Your task to perform on an android device: see sites visited before in the chrome app Image 0: 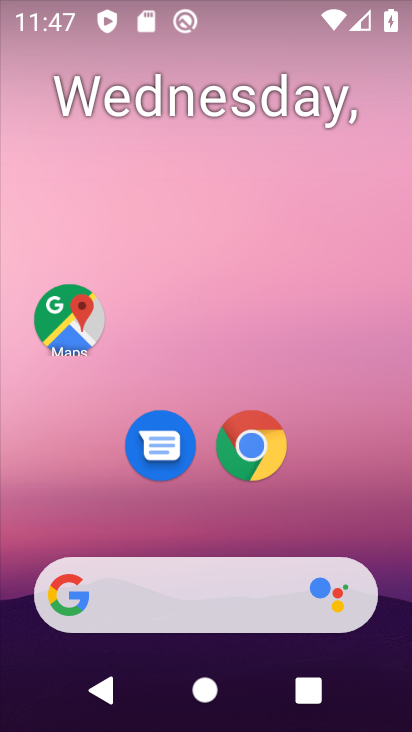
Step 0: drag from (196, 507) to (227, 3)
Your task to perform on an android device: see sites visited before in the chrome app Image 1: 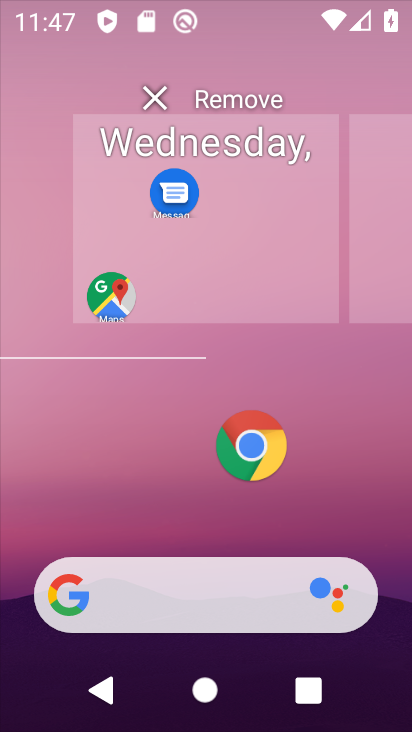
Step 1: drag from (203, 534) to (208, 112)
Your task to perform on an android device: see sites visited before in the chrome app Image 2: 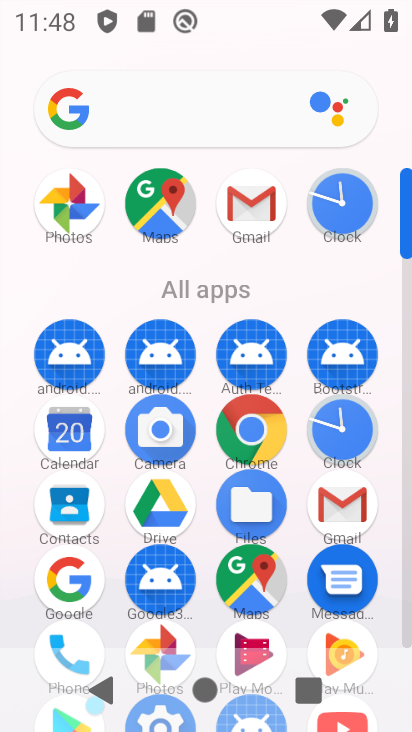
Step 2: click (245, 400)
Your task to perform on an android device: see sites visited before in the chrome app Image 3: 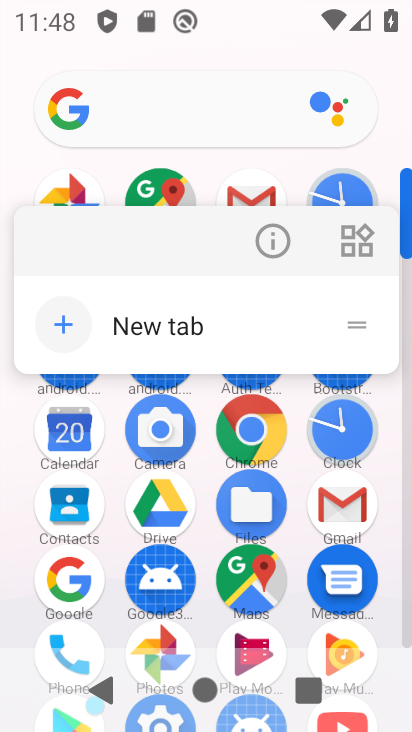
Step 3: click (289, 238)
Your task to perform on an android device: see sites visited before in the chrome app Image 4: 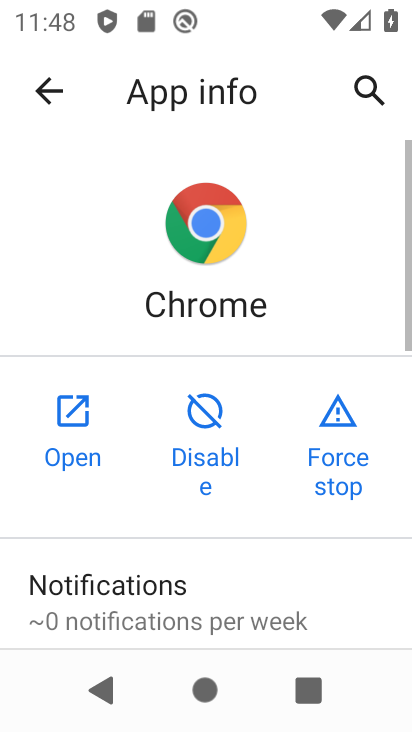
Step 4: click (92, 431)
Your task to perform on an android device: see sites visited before in the chrome app Image 5: 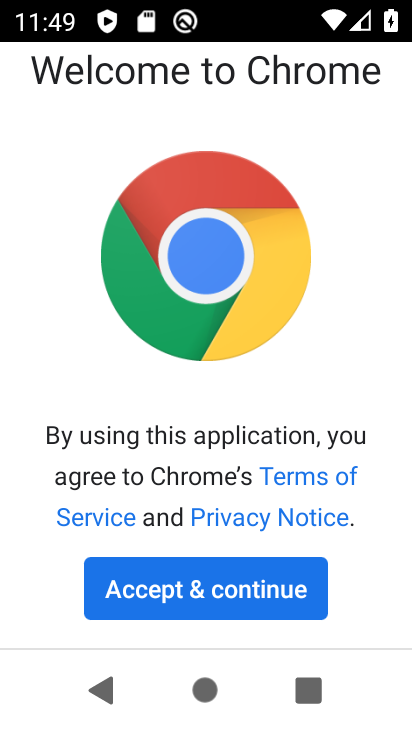
Step 5: click (157, 591)
Your task to perform on an android device: see sites visited before in the chrome app Image 6: 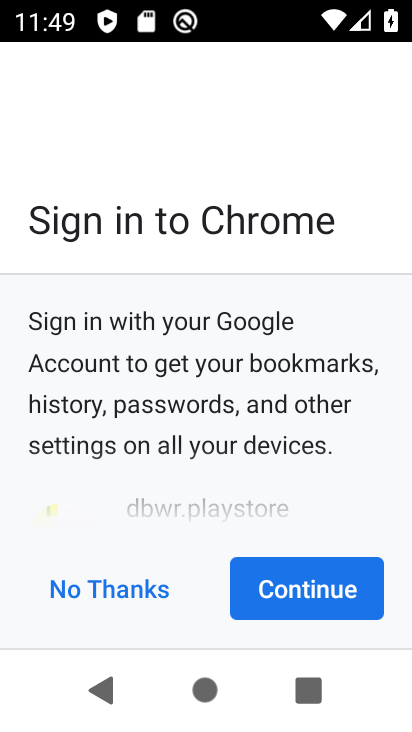
Step 6: click (285, 575)
Your task to perform on an android device: see sites visited before in the chrome app Image 7: 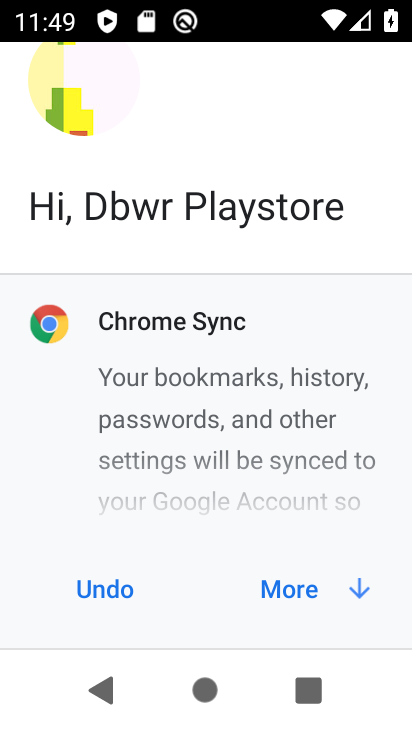
Step 7: click (302, 582)
Your task to perform on an android device: see sites visited before in the chrome app Image 8: 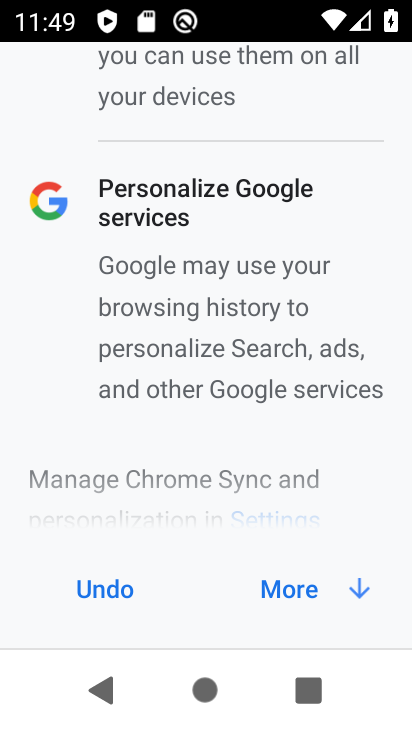
Step 8: click (297, 582)
Your task to perform on an android device: see sites visited before in the chrome app Image 9: 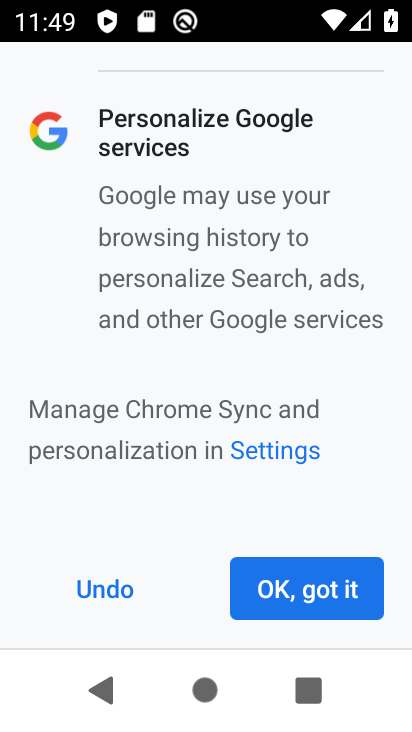
Step 9: click (295, 594)
Your task to perform on an android device: see sites visited before in the chrome app Image 10: 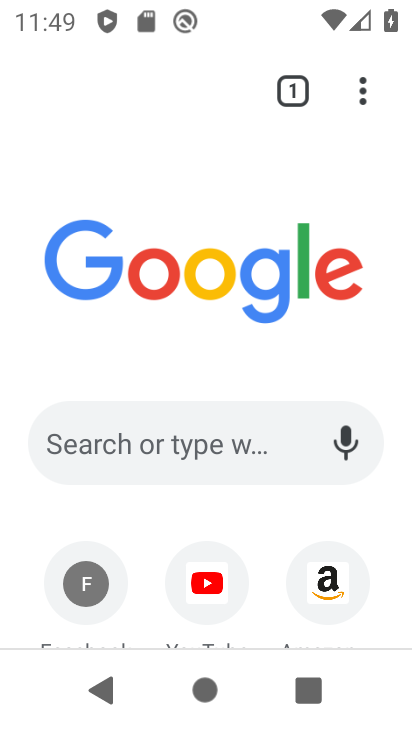
Step 10: task complete